Your task to perform on an android device: uninstall "PlayWell" Image 0: 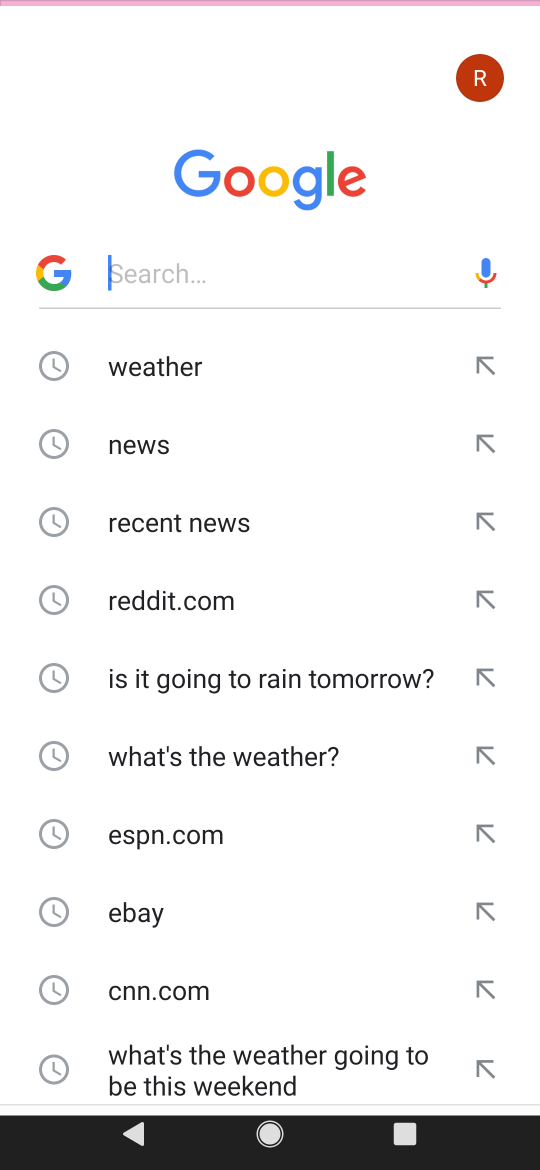
Step 0: press home button
Your task to perform on an android device: uninstall "PlayWell" Image 1: 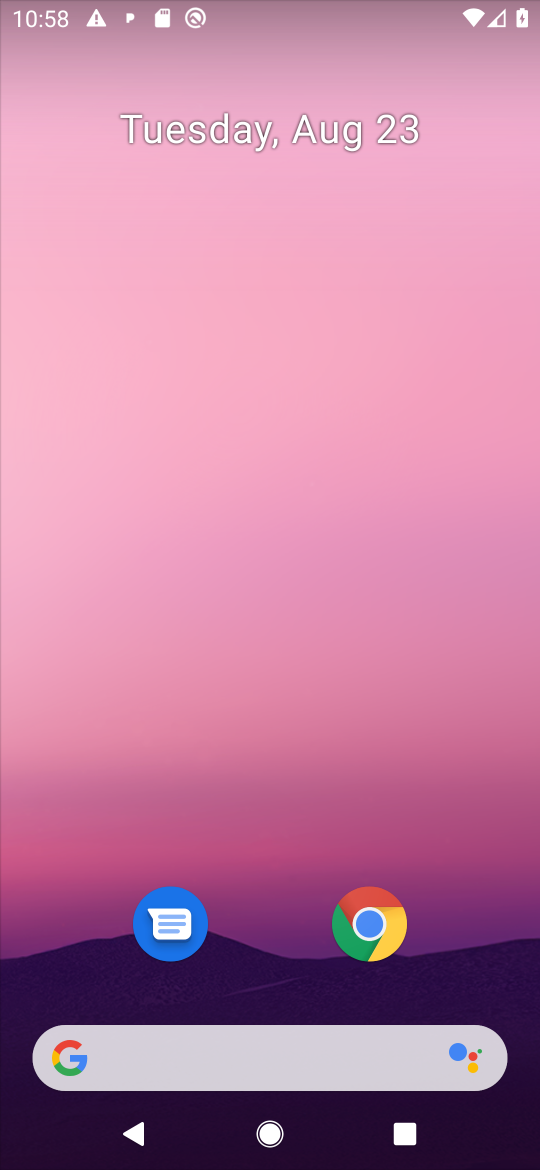
Step 1: drag from (447, 973) to (484, 127)
Your task to perform on an android device: uninstall "PlayWell" Image 2: 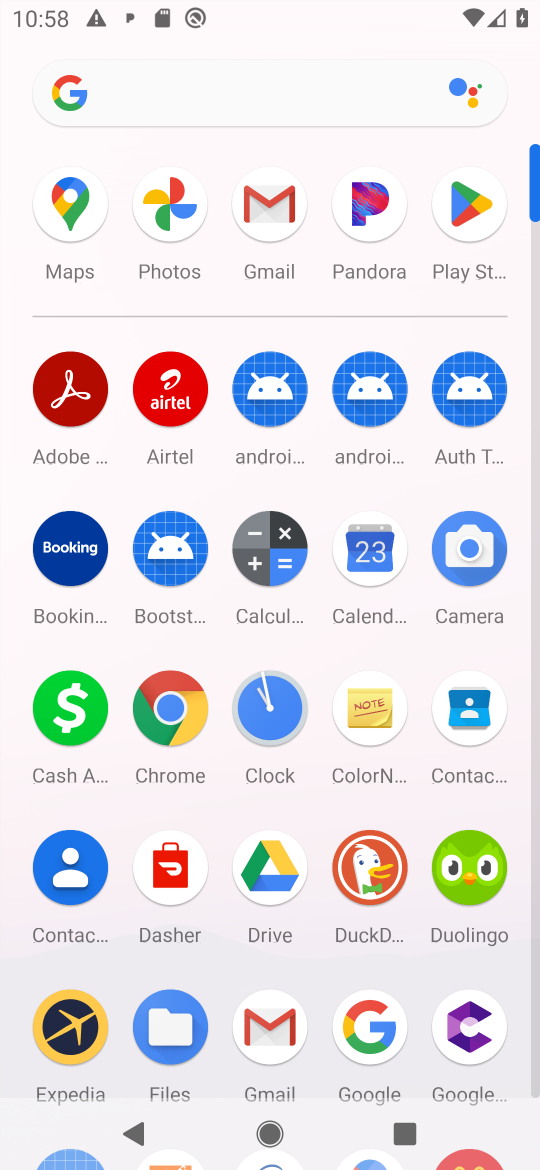
Step 2: click (472, 201)
Your task to perform on an android device: uninstall "PlayWell" Image 3: 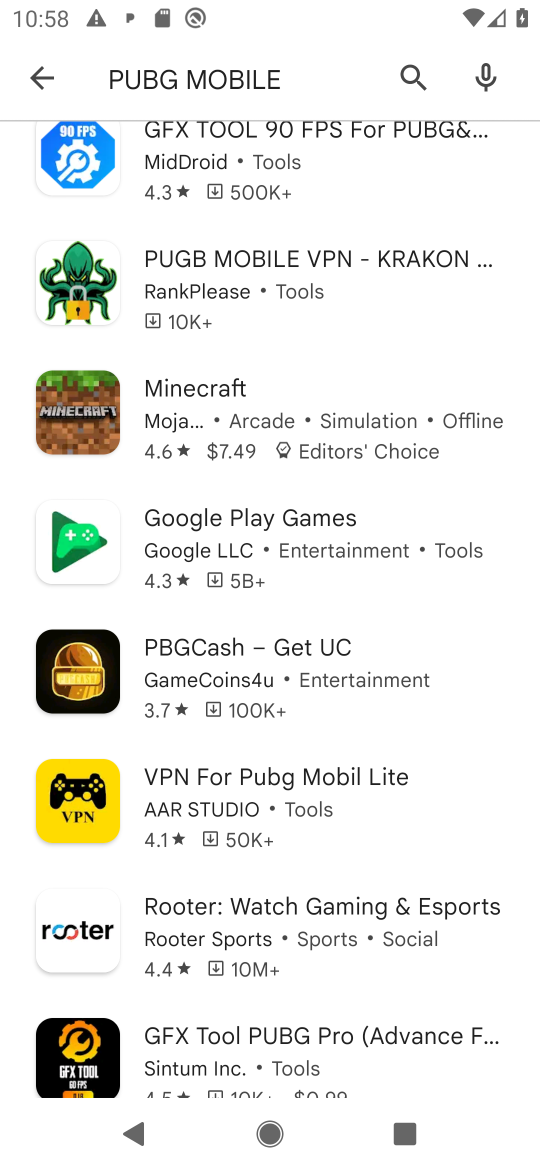
Step 3: press back button
Your task to perform on an android device: uninstall "PlayWell" Image 4: 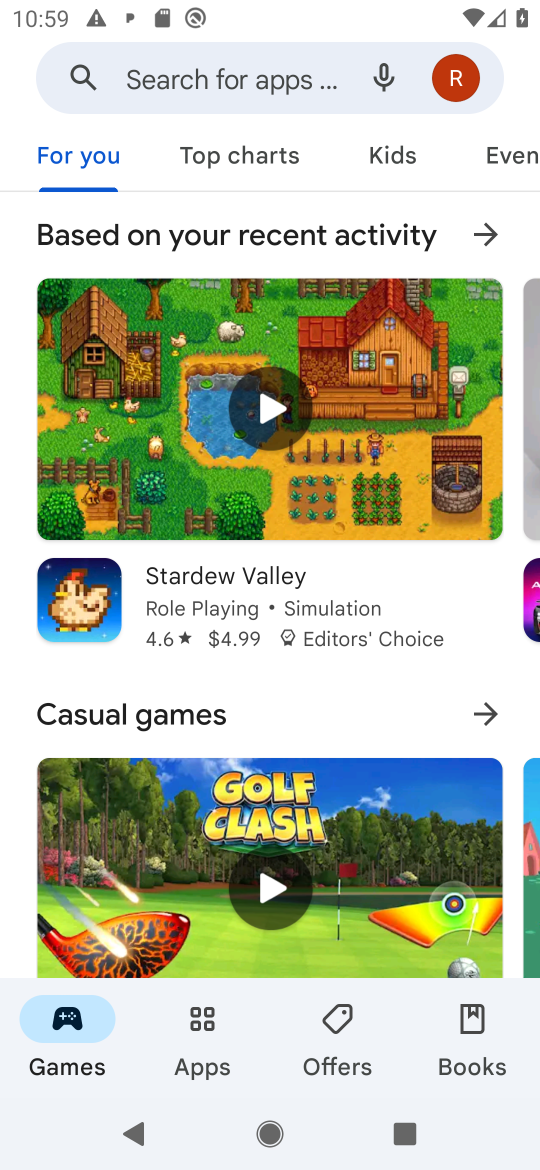
Step 4: click (242, 74)
Your task to perform on an android device: uninstall "PlayWell" Image 5: 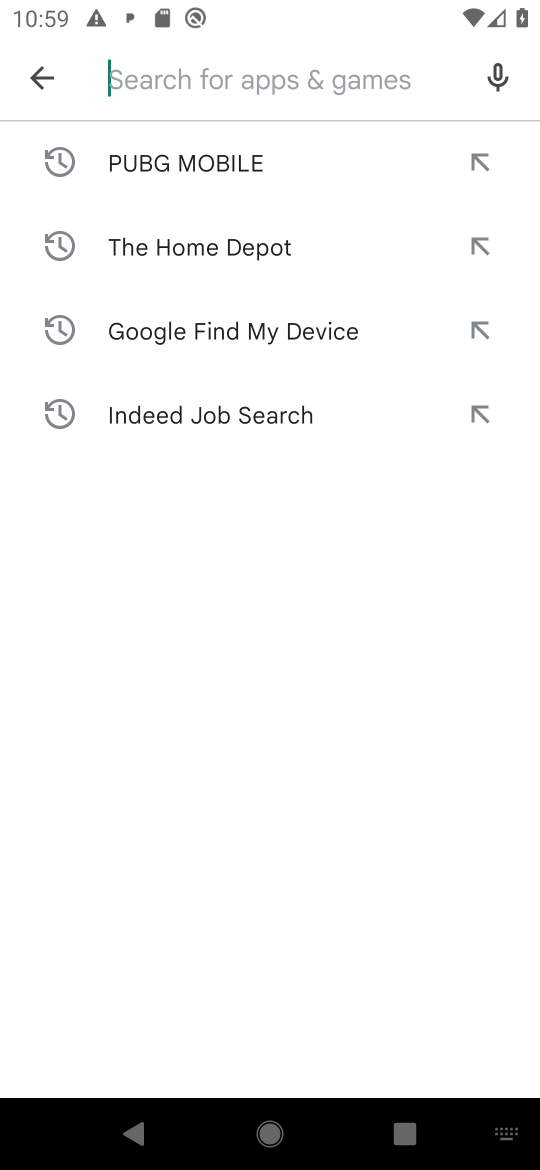
Step 5: type "play well"
Your task to perform on an android device: uninstall "PlayWell" Image 6: 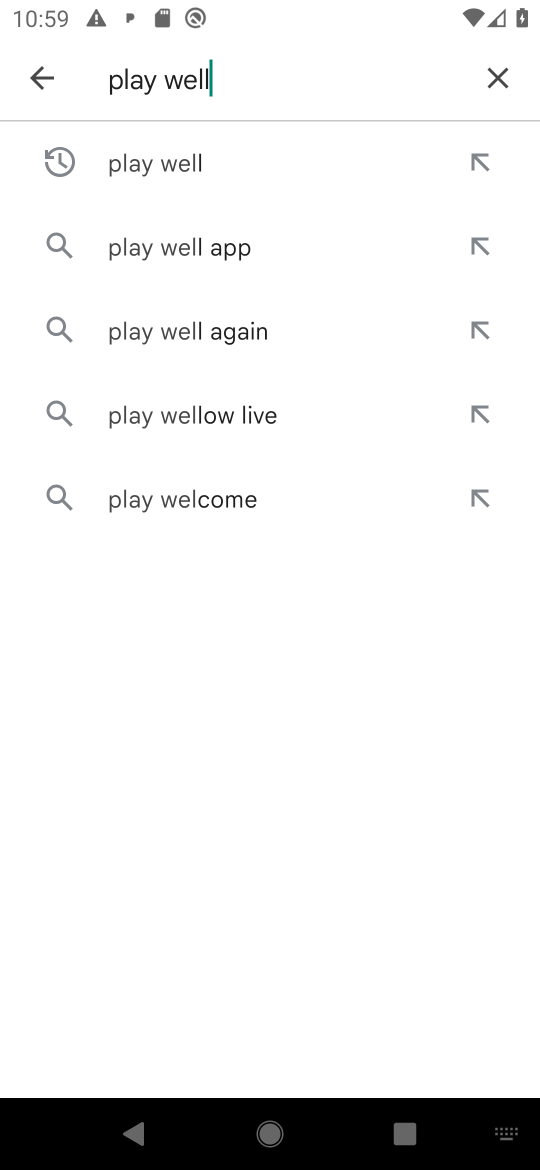
Step 6: press enter
Your task to perform on an android device: uninstall "PlayWell" Image 7: 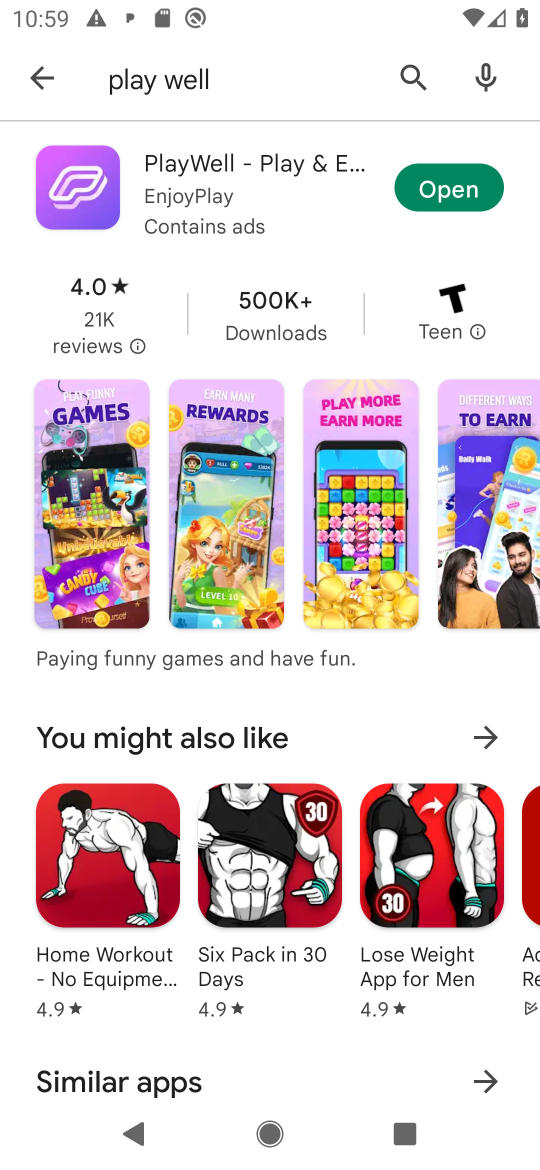
Step 7: task complete